Your task to perform on an android device: Search for the best rated headphones on AliExpress. Image 0: 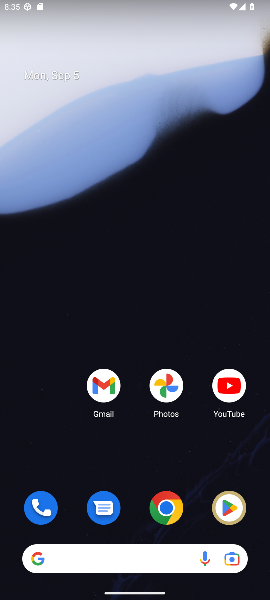
Step 0: click (162, 516)
Your task to perform on an android device: Search for the best rated headphones on AliExpress. Image 1: 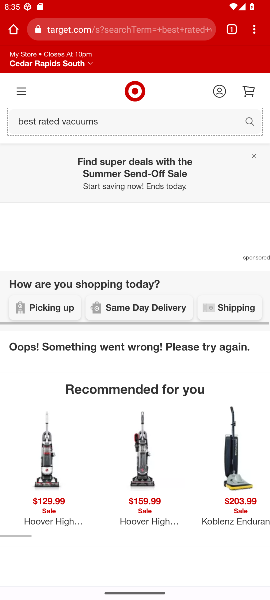
Step 1: click (149, 37)
Your task to perform on an android device: Search for the best rated headphones on AliExpress. Image 2: 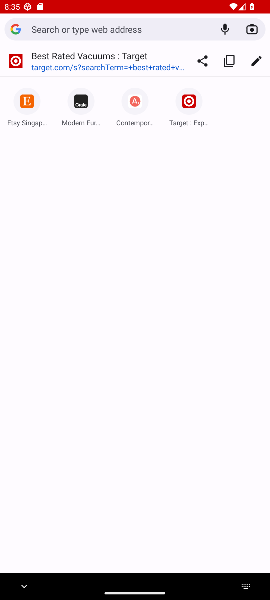
Step 2: type "aliexpress"
Your task to perform on an android device: Search for the best rated headphones on AliExpress. Image 3: 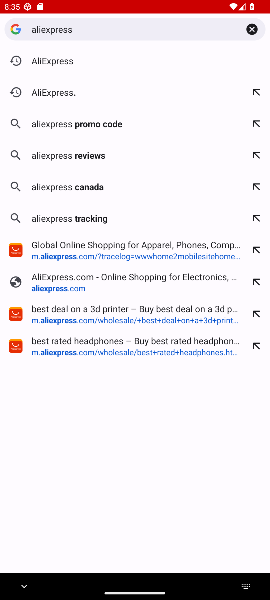
Step 3: click (52, 67)
Your task to perform on an android device: Search for the best rated headphones on AliExpress. Image 4: 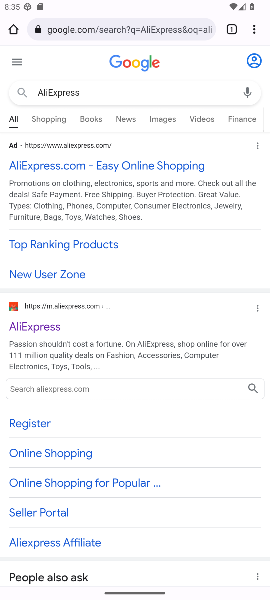
Step 4: click (42, 323)
Your task to perform on an android device: Search for the best rated headphones on AliExpress. Image 5: 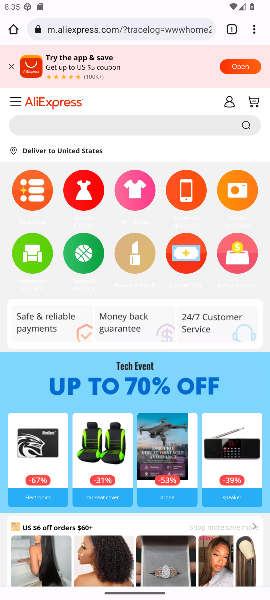
Step 5: click (174, 123)
Your task to perform on an android device: Search for the best rated headphones on AliExpress. Image 6: 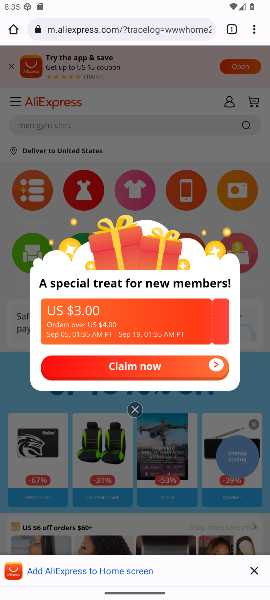
Step 6: click (136, 408)
Your task to perform on an android device: Search for the best rated headphones on AliExpress. Image 7: 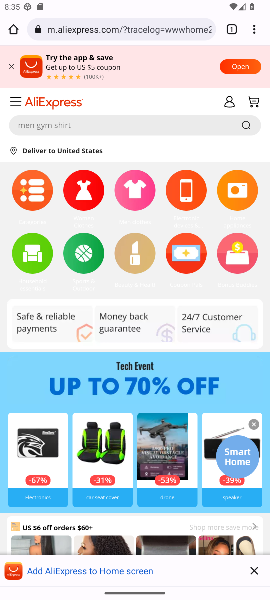
Step 7: click (70, 124)
Your task to perform on an android device: Search for the best rated headphones on AliExpress. Image 8: 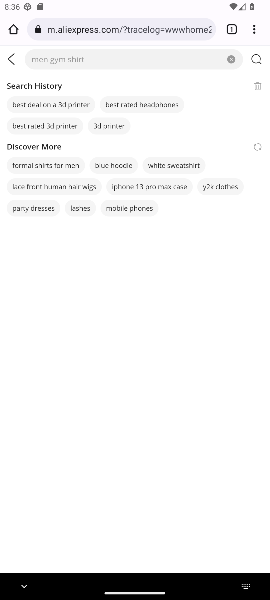
Step 8: type "best rated headphones"
Your task to perform on an android device: Search for the best rated headphones on AliExpress. Image 9: 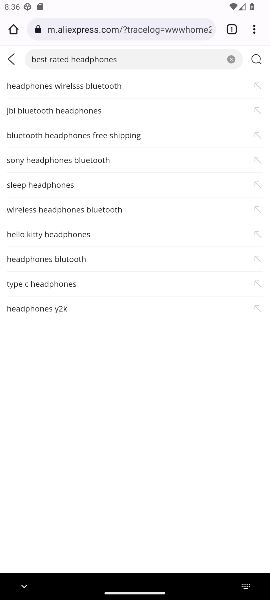
Step 9: click (255, 60)
Your task to perform on an android device: Search for the best rated headphones on AliExpress. Image 10: 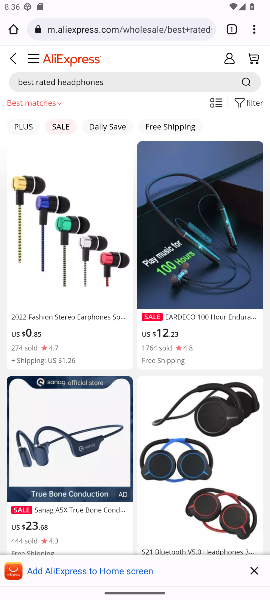
Step 10: task complete